Your task to perform on an android device: Search for sushi restaurants on Maps Image 0: 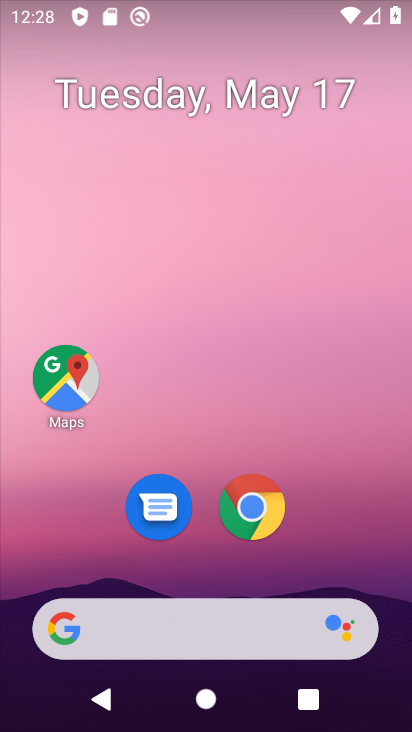
Step 0: drag from (336, 582) to (307, 139)
Your task to perform on an android device: Search for sushi restaurants on Maps Image 1: 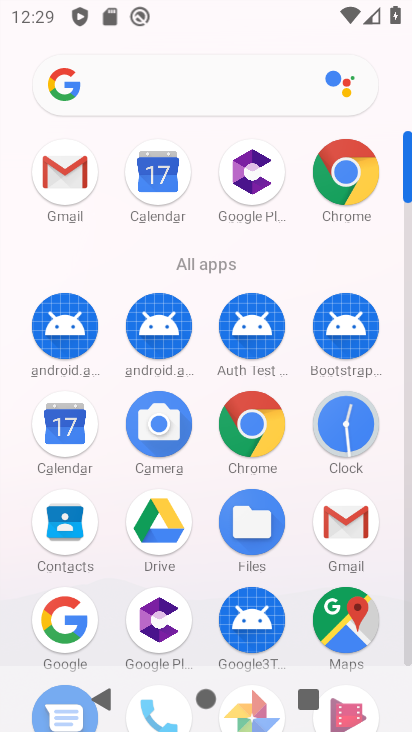
Step 1: click (346, 608)
Your task to perform on an android device: Search for sushi restaurants on Maps Image 2: 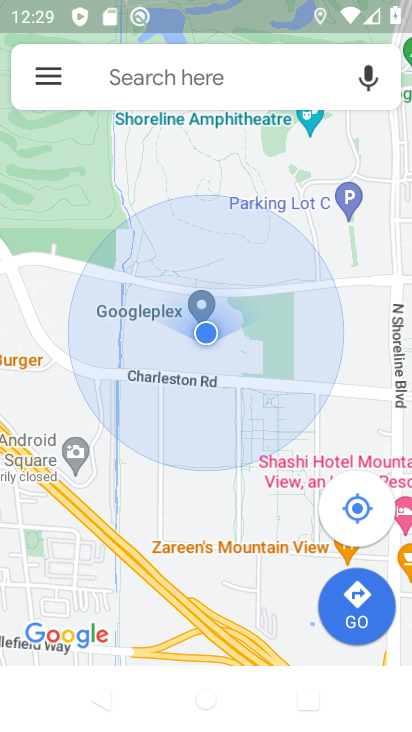
Step 2: click (140, 66)
Your task to perform on an android device: Search for sushi restaurants on Maps Image 3: 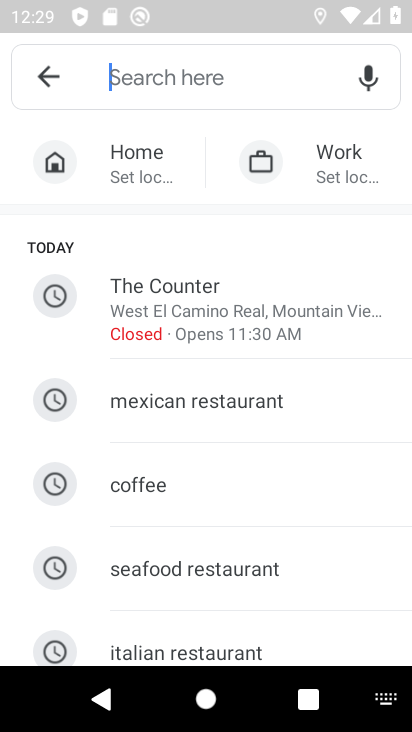
Step 3: type "sushi restaurants"
Your task to perform on an android device: Search for sushi restaurants on Maps Image 4: 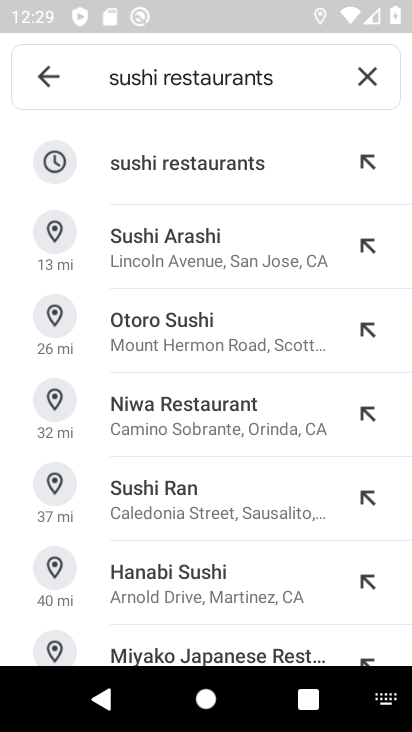
Step 4: click (229, 156)
Your task to perform on an android device: Search for sushi restaurants on Maps Image 5: 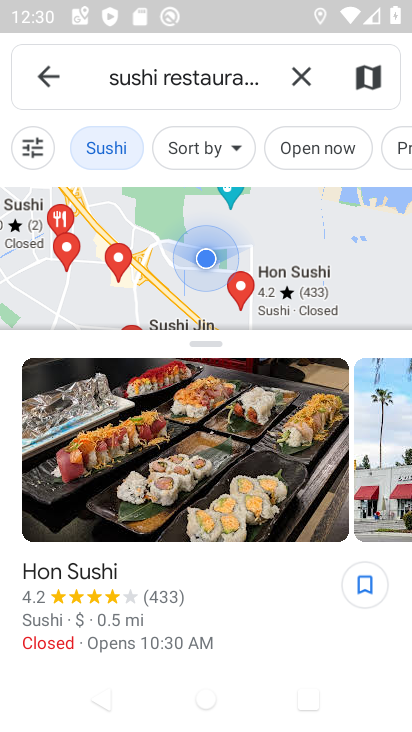
Step 5: task complete